Your task to perform on an android device: Check the news Image 0: 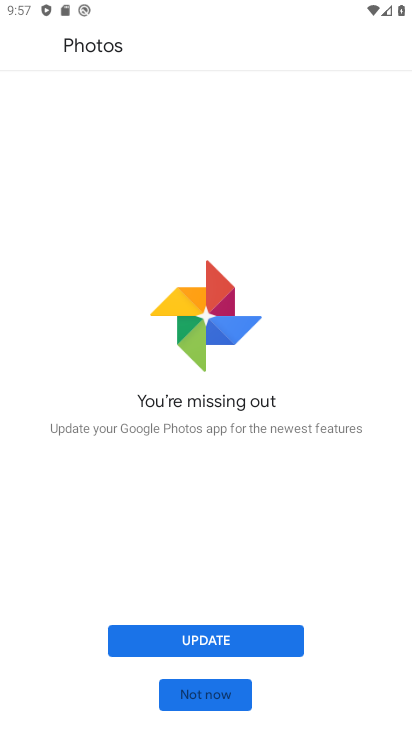
Step 0: press home button
Your task to perform on an android device: Check the news Image 1: 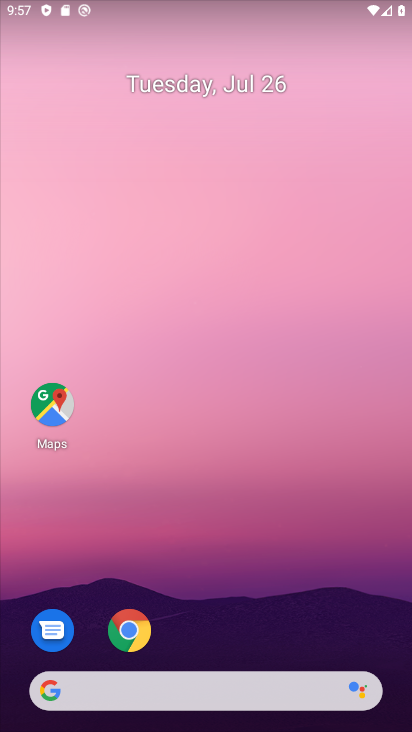
Step 1: task complete